Your task to perform on an android device: add a contact in the contacts app Image 0: 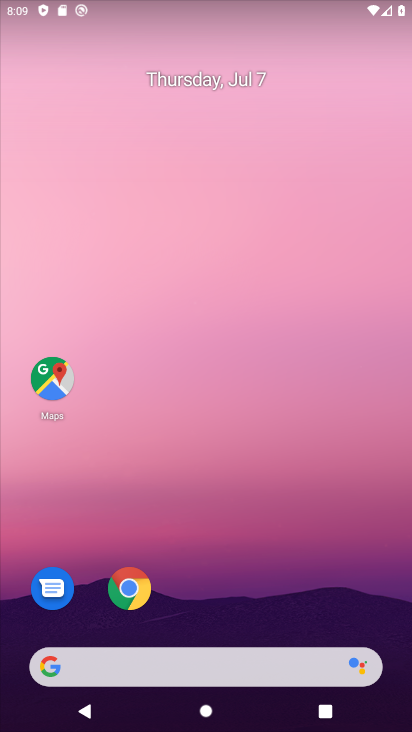
Step 0: drag from (176, 664) to (313, 47)
Your task to perform on an android device: add a contact in the contacts app Image 1: 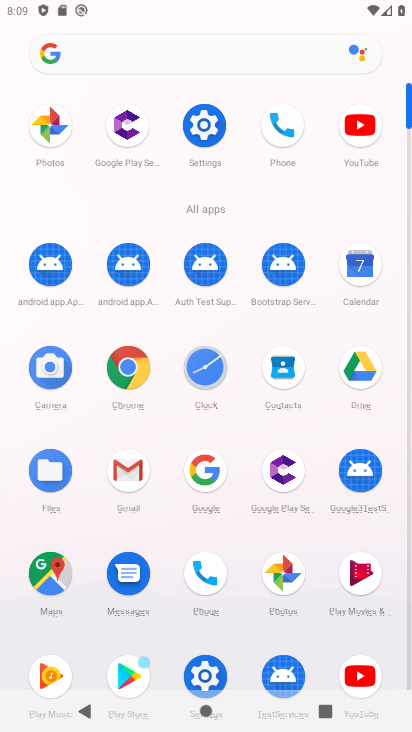
Step 1: click (287, 366)
Your task to perform on an android device: add a contact in the contacts app Image 2: 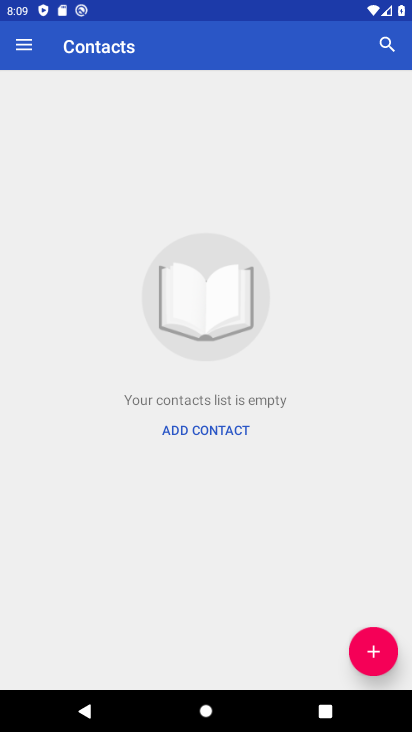
Step 2: click (381, 646)
Your task to perform on an android device: add a contact in the contacts app Image 3: 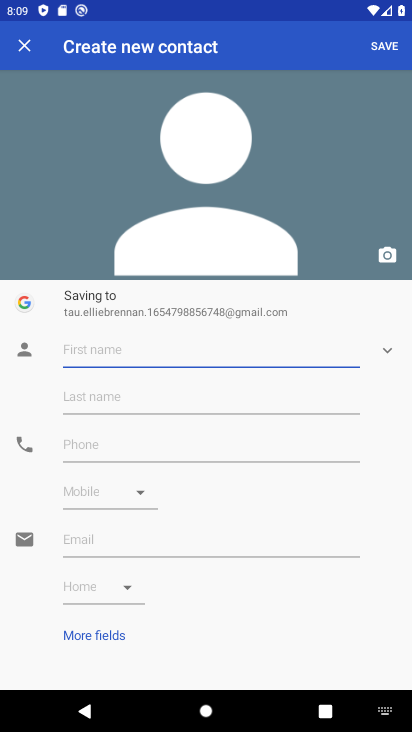
Step 3: type "abgetr"
Your task to perform on an android device: add a contact in the contacts app Image 4: 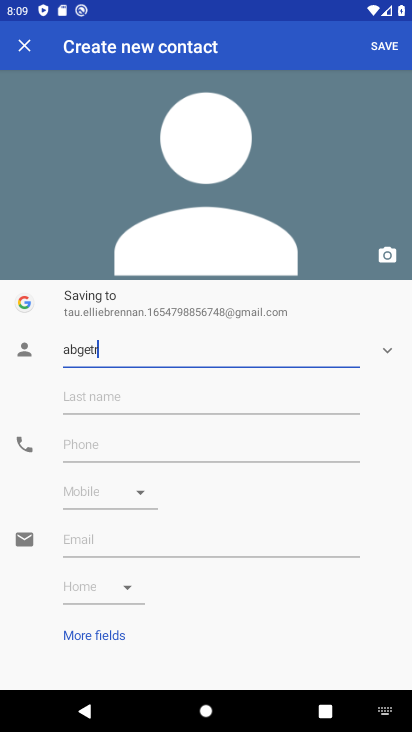
Step 4: click (104, 442)
Your task to perform on an android device: add a contact in the contacts app Image 5: 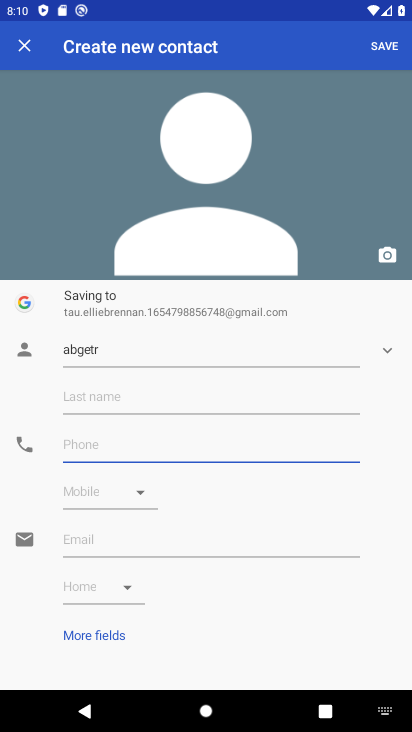
Step 5: type "264654758"
Your task to perform on an android device: add a contact in the contacts app Image 6: 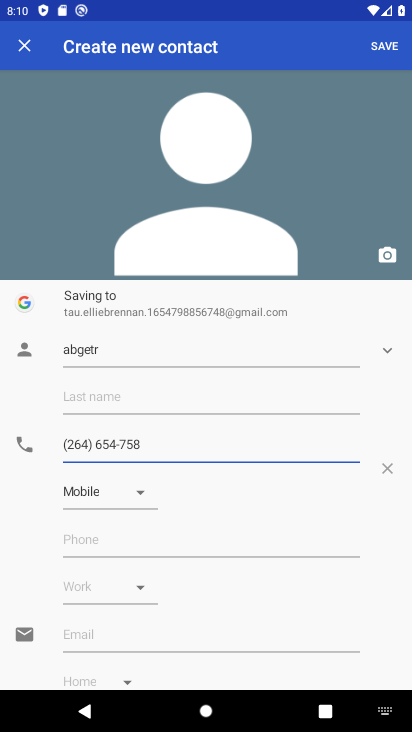
Step 6: click (377, 45)
Your task to perform on an android device: add a contact in the contacts app Image 7: 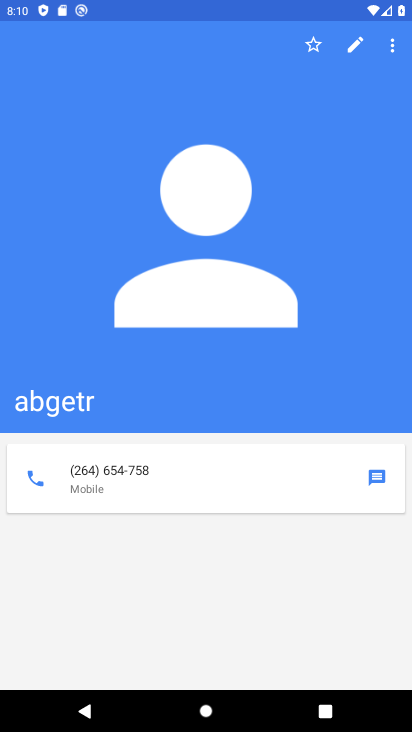
Step 7: task complete